Your task to perform on an android device: refresh tabs in the chrome app Image 0: 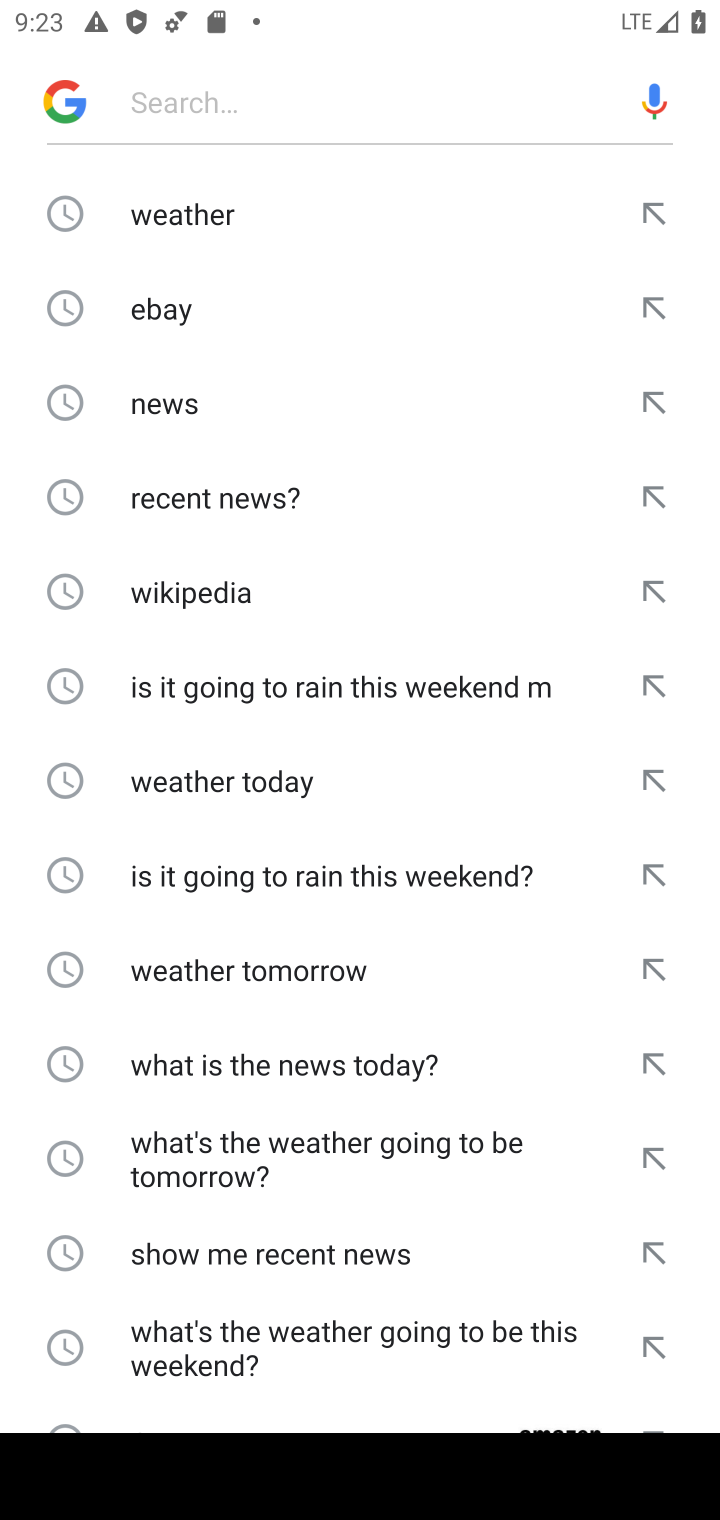
Step 0: press home button
Your task to perform on an android device: refresh tabs in the chrome app Image 1: 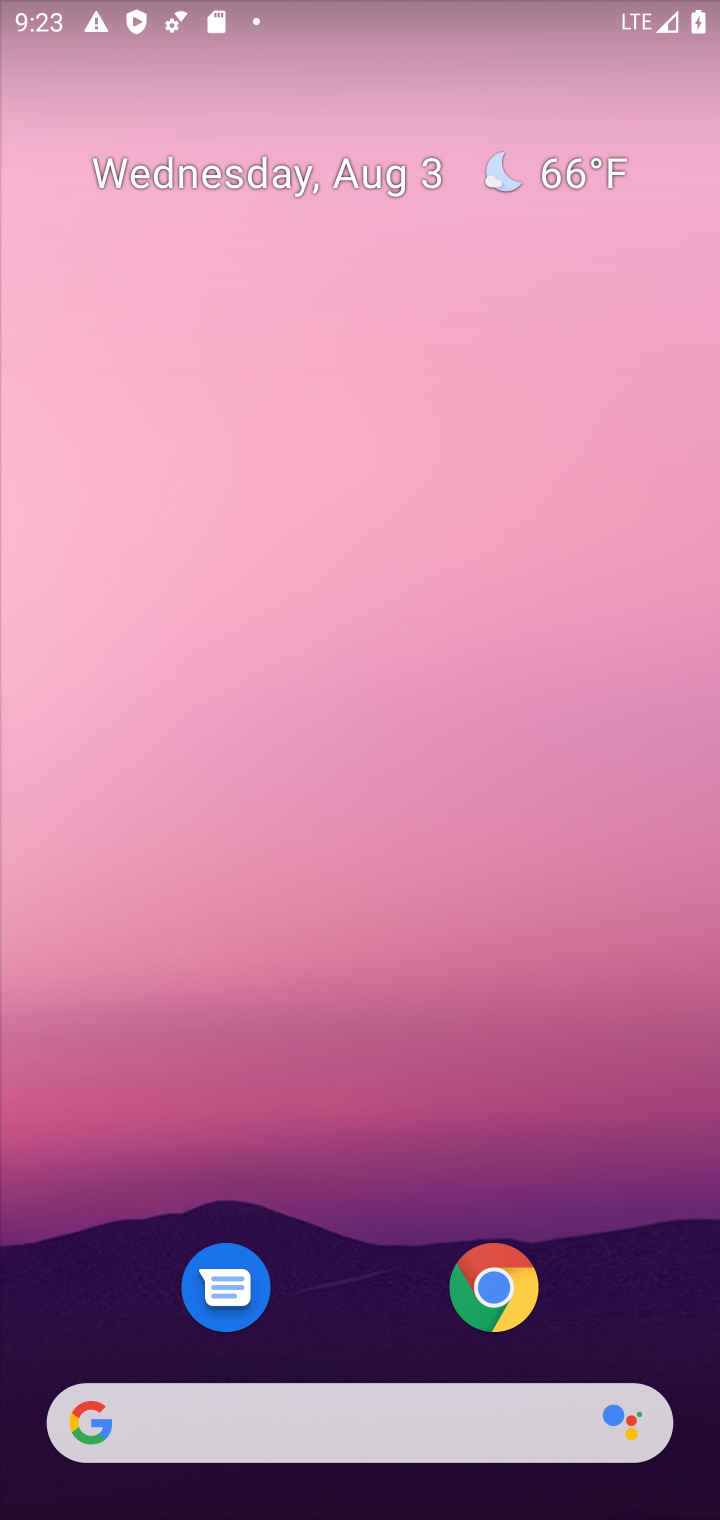
Step 1: click (495, 1288)
Your task to perform on an android device: refresh tabs in the chrome app Image 2: 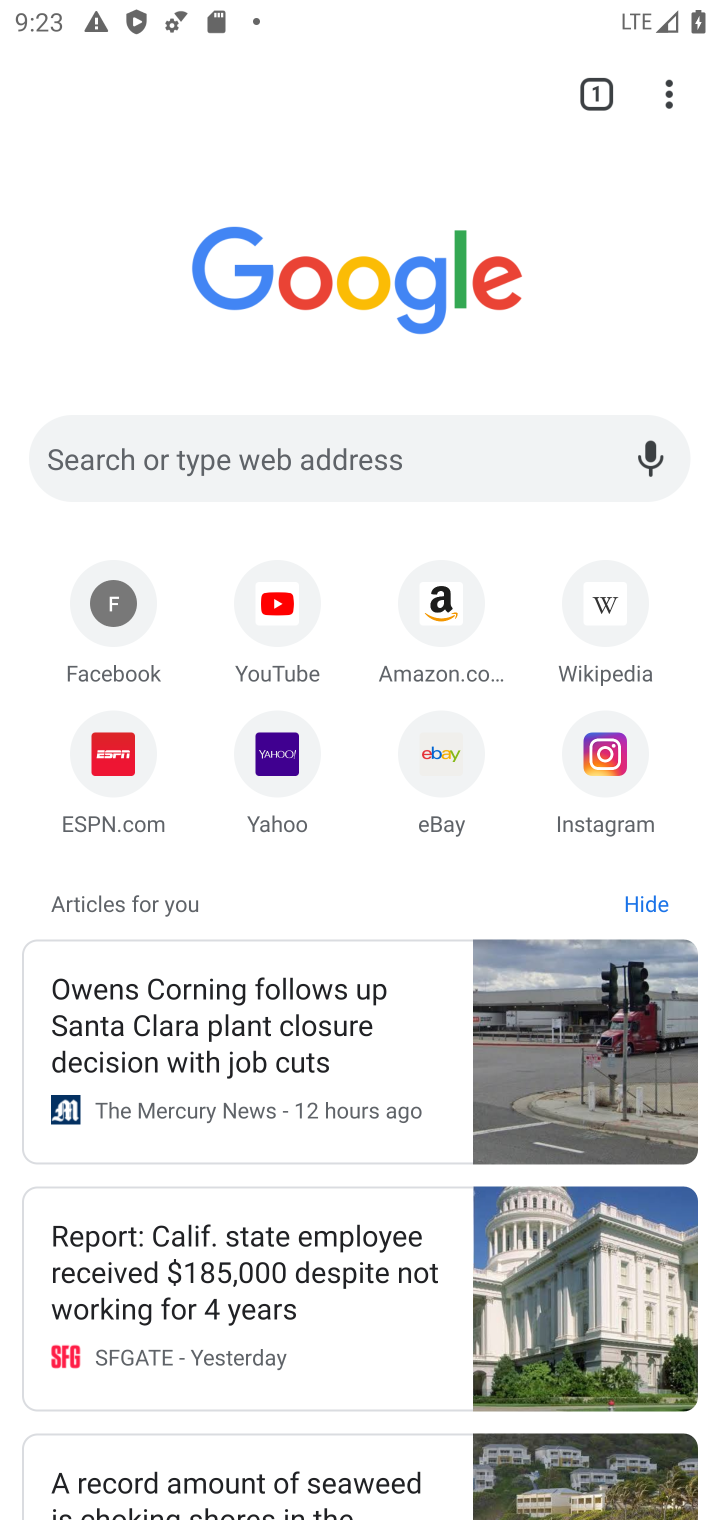
Step 2: click (661, 103)
Your task to perform on an android device: refresh tabs in the chrome app Image 3: 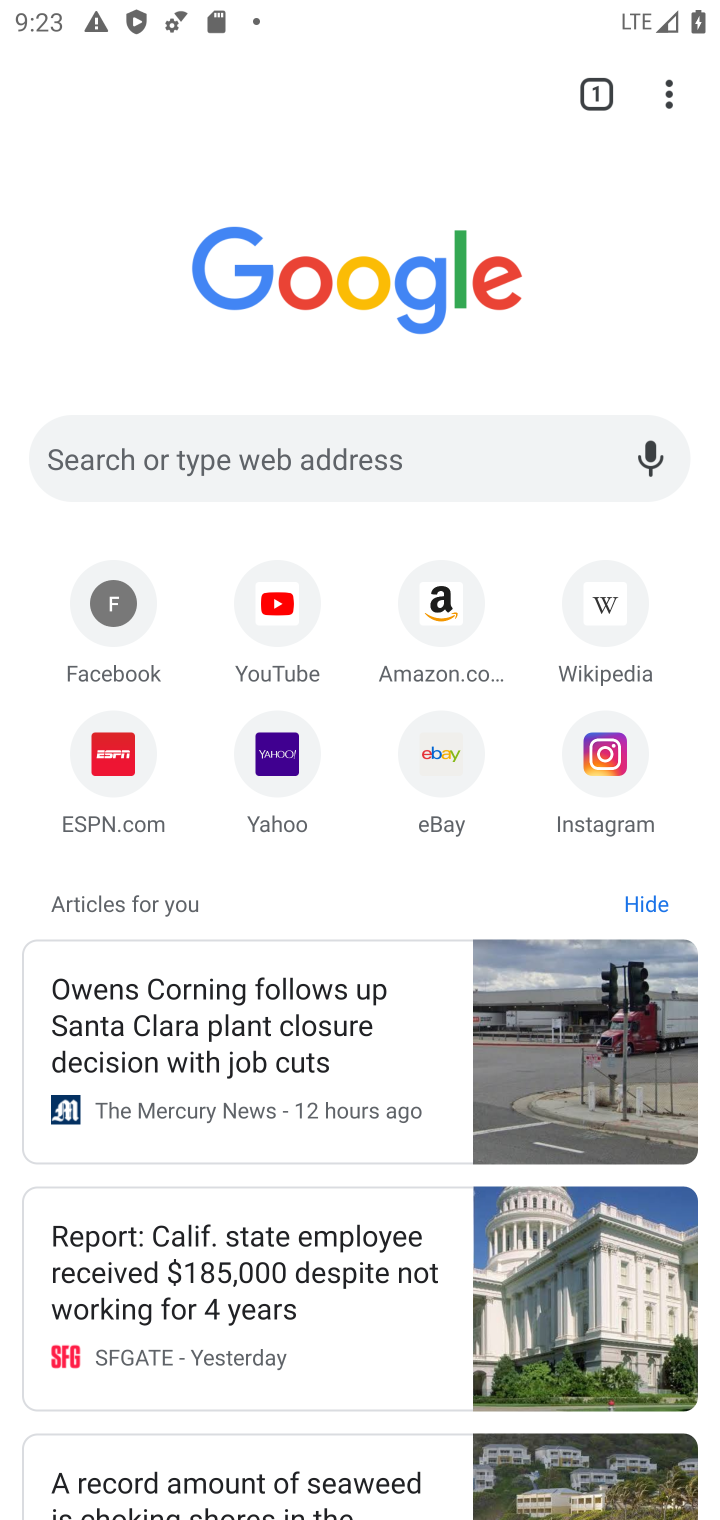
Step 3: task complete